Your task to perform on an android device: Open location settings Image 0: 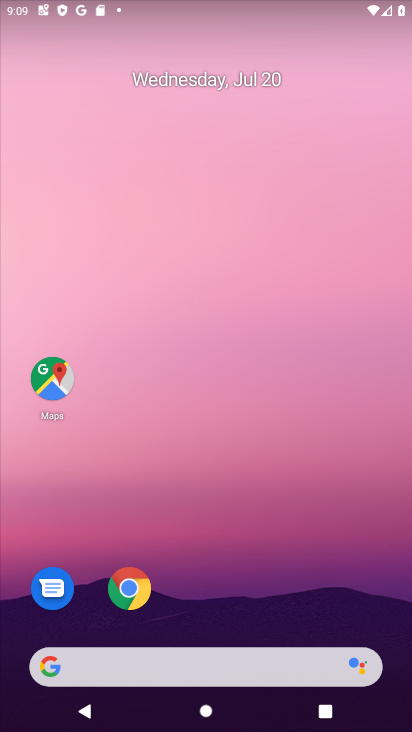
Step 0: drag from (260, 617) to (351, 44)
Your task to perform on an android device: Open location settings Image 1: 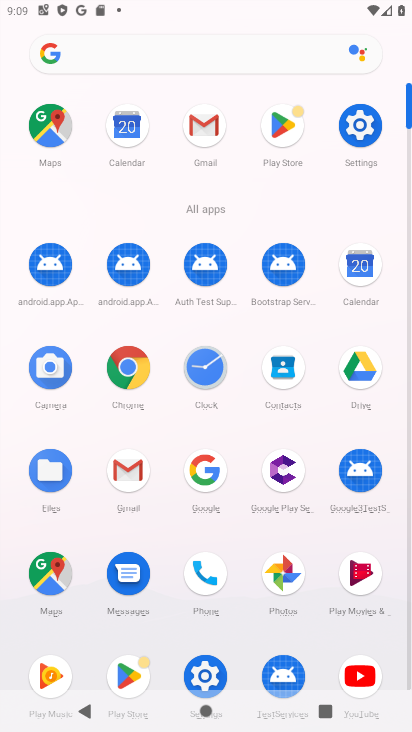
Step 1: click (363, 126)
Your task to perform on an android device: Open location settings Image 2: 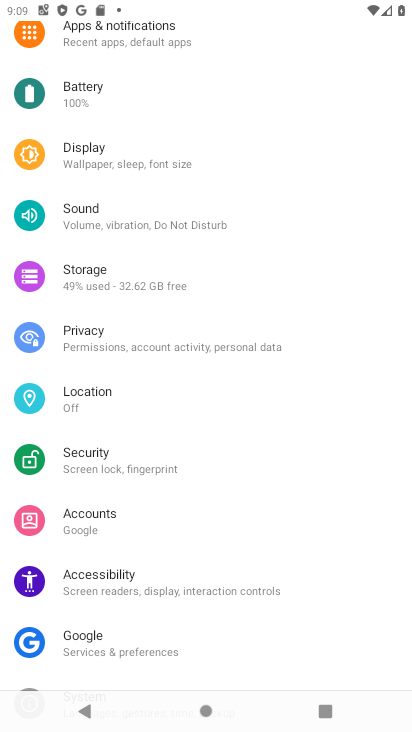
Step 2: click (147, 399)
Your task to perform on an android device: Open location settings Image 3: 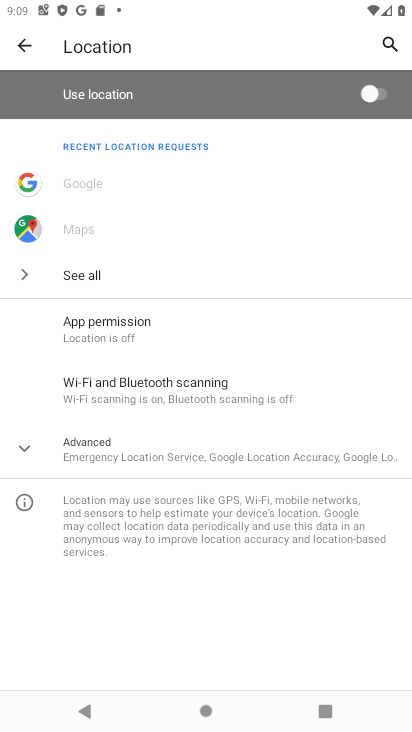
Step 3: click (270, 441)
Your task to perform on an android device: Open location settings Image 4: 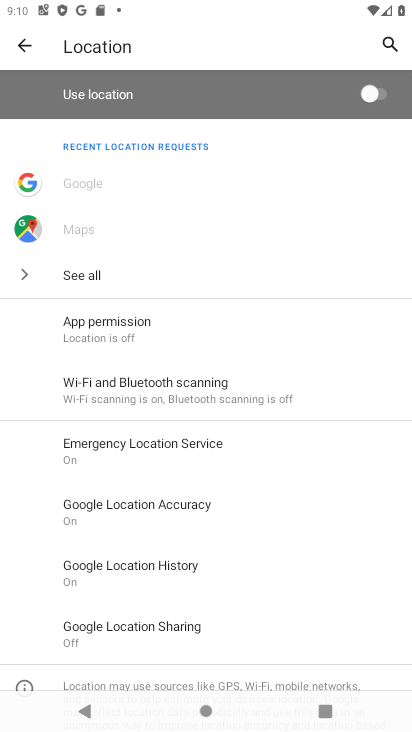
Step 4: task complete